Your task to perform on an android device: change the clock style Image 0: 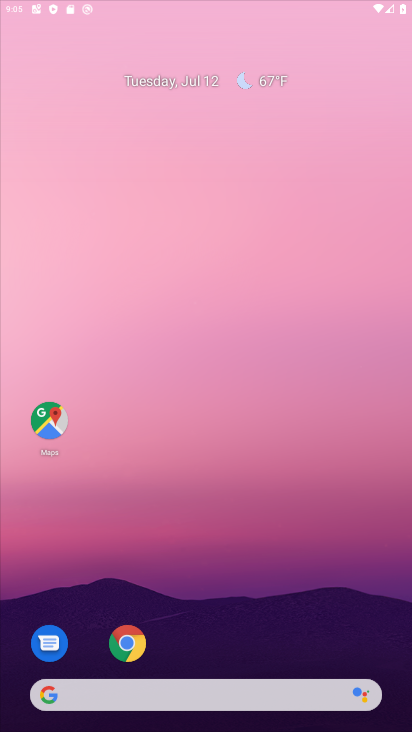
Step 0: click (238, 241)
Your task to perform on an android device: change the clock style Image 1: 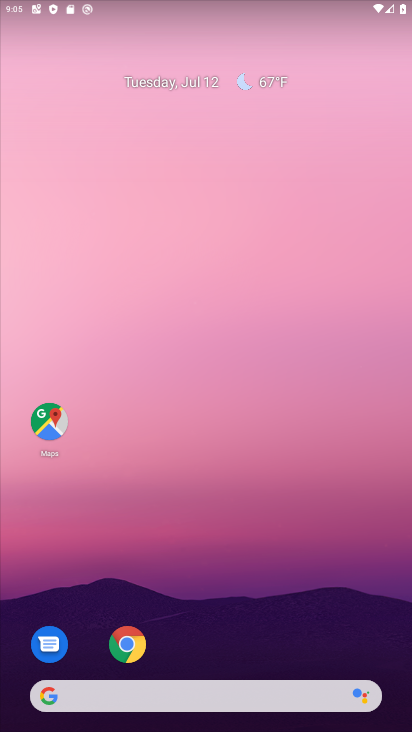
Step 1: drag from (188, 631) to (297, 97)
Your task to perform on an android device: change the clock style Image 2: 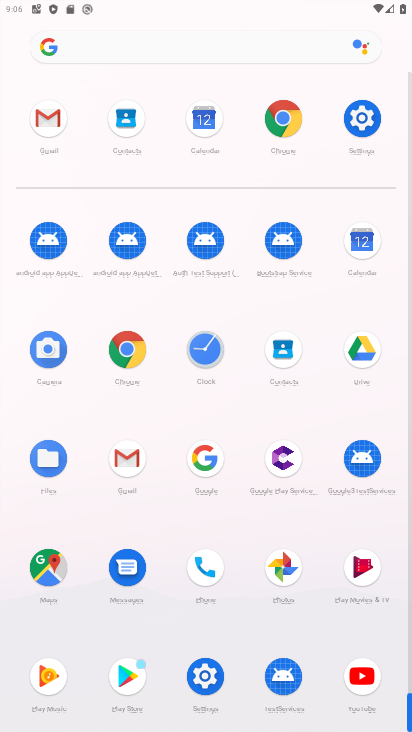
Step 2: click (198, 351)
Your task to perform on an android device: change the clock style Image 3: 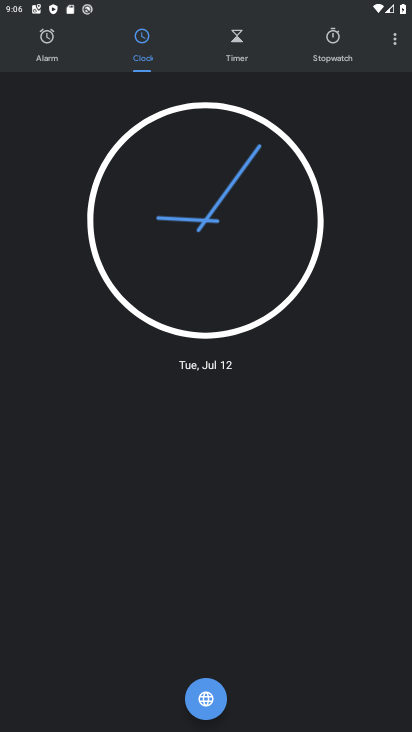
Step 3: click (399, 37)
Your task to perform on an android device: change the clock style Image 4: 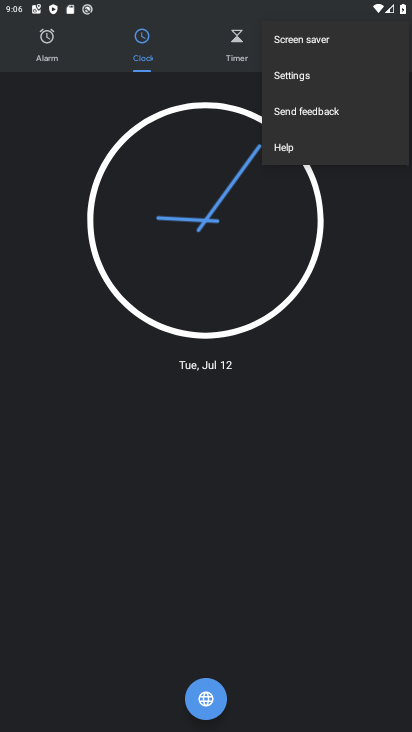
Step 4: click (308, 73)
Your task to perform on an android device: change the clock style Image 5: 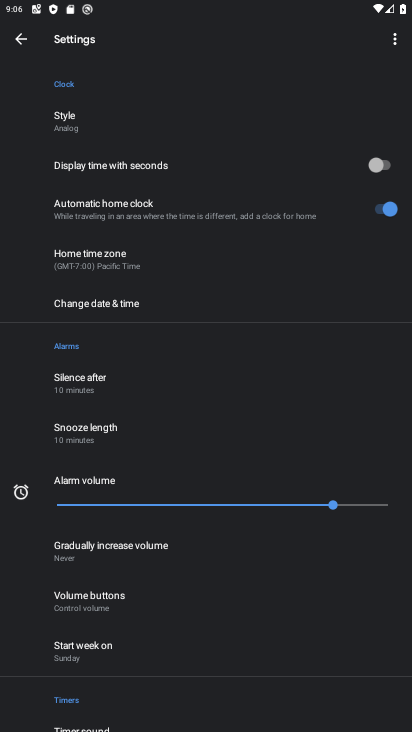
Step 5: click (96, 115)
Your task to perform on an android device: change the clock style Image 6: 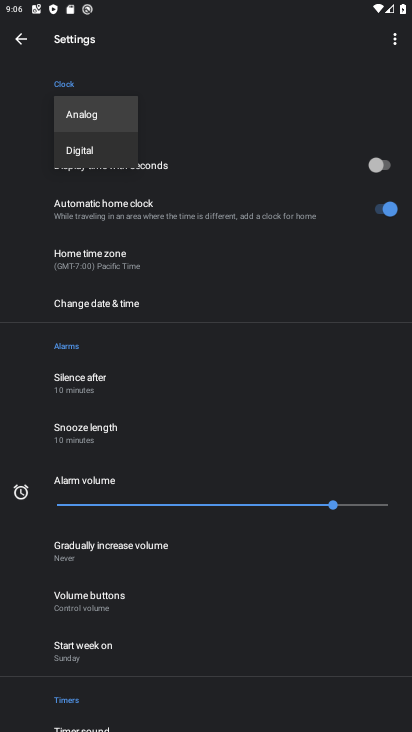
Step 6: click (96, 151)
Your task to perform on an android device: change the clock style Image 7: 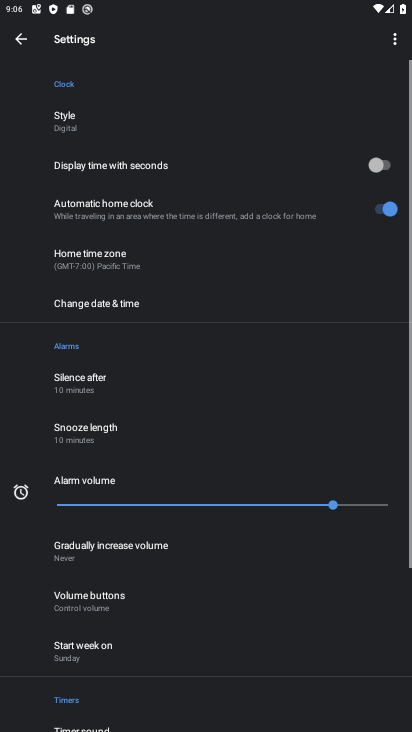
Step 7: task complete